Your task to perform on an android device: Go to privacy settings Image 0: 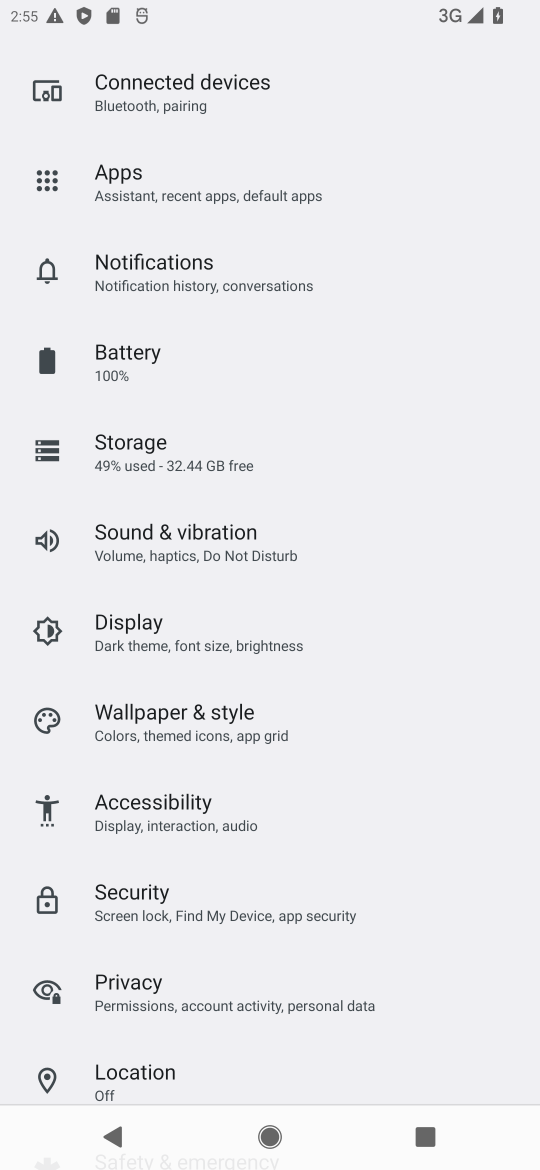
Step 0: click (132, 1009)
Your task to perform on an android device: Go to privacy settings Image 1: 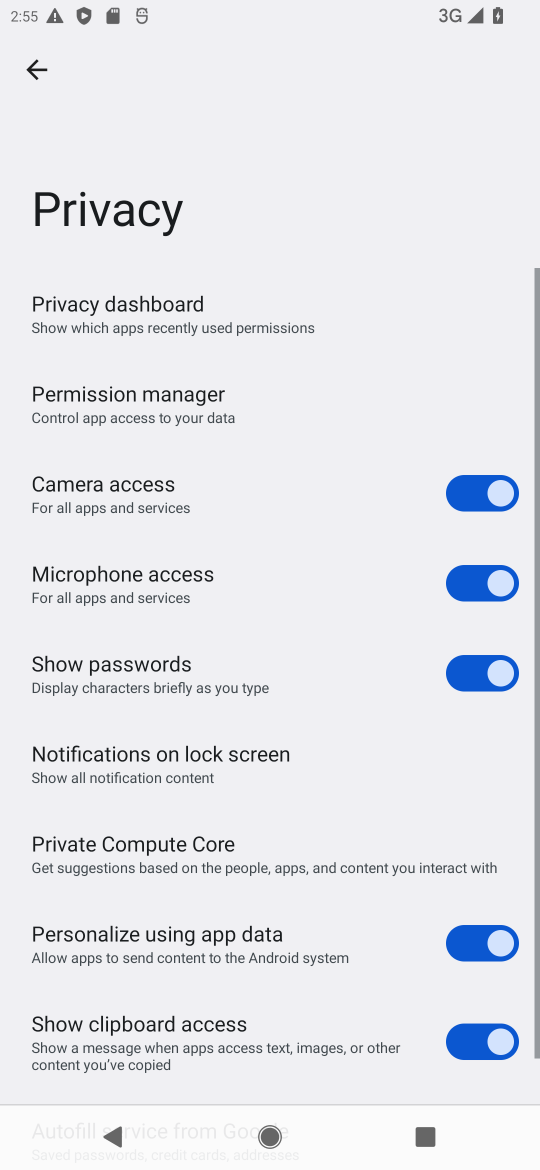
Step 1: task complete